Your task to perform on an android device: turn on the 12-hour format for clock Image 0: 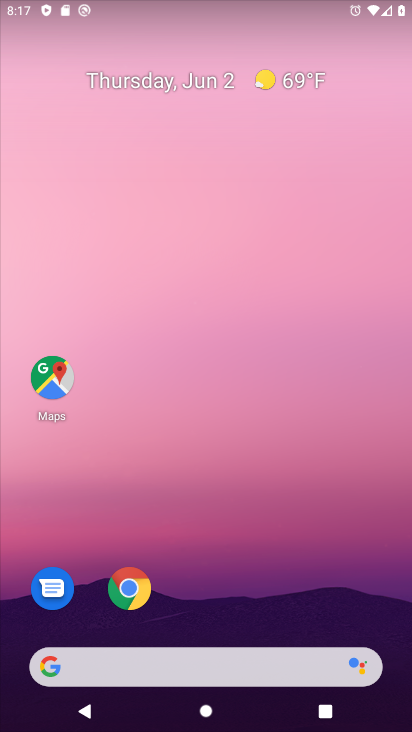
Step 0: drag from (227, 711) to (228, 2)
Your task to perform on an android device: turn on the 12-hour format for clock Image 1: 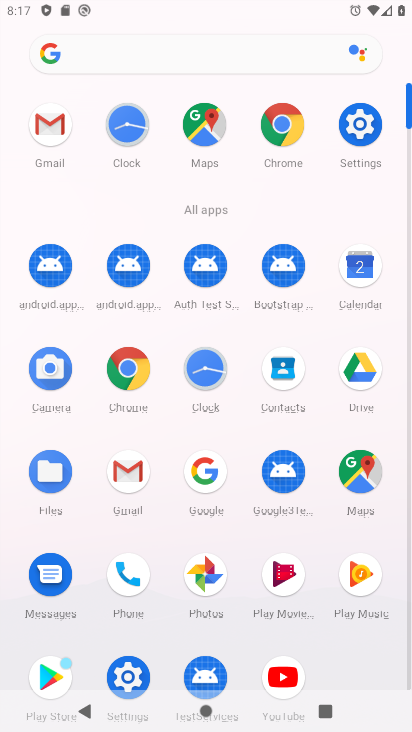
Step 1: click (203, 368)
Your task to perform on an android device: turn on the 12-hour format for clock Image 2: 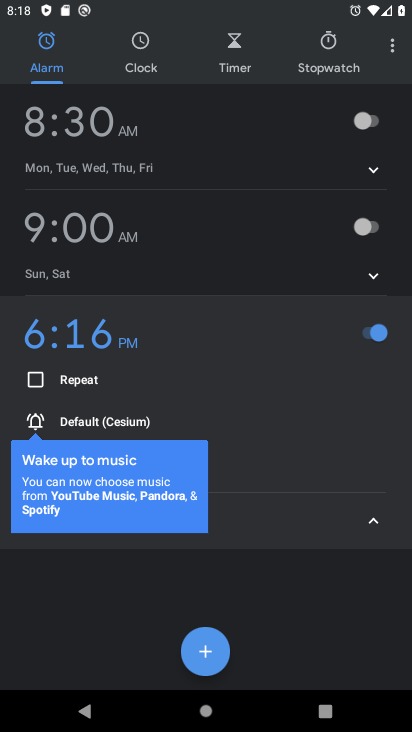
Step 2: click (395, 54)
Your task to perform on an android device: turn on the 12-hour format for clock Image 3: 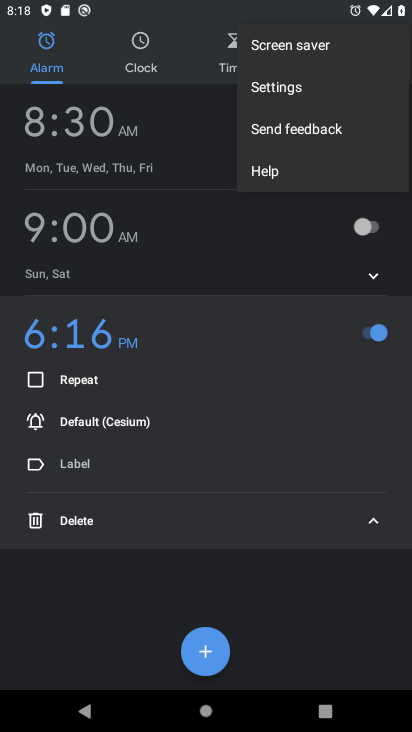
Step 3: click (277, 87)
Your task to perform on an android device: turn on the 12-hour format for clock Image 4: 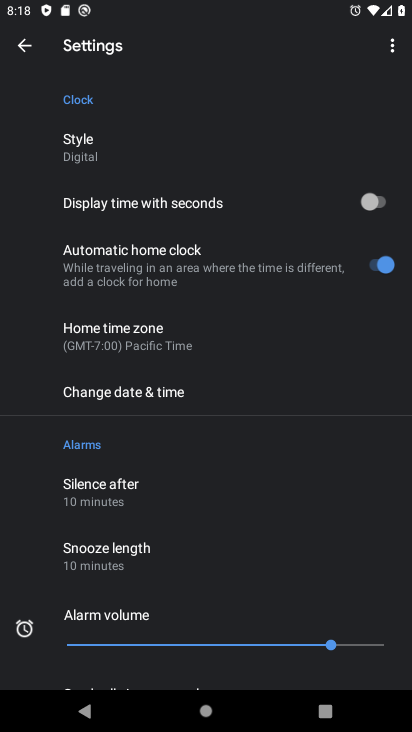
Step 4: click (94, 391)
Your task to perform on an android device: turn on the 12-hour format for clock Image 5: 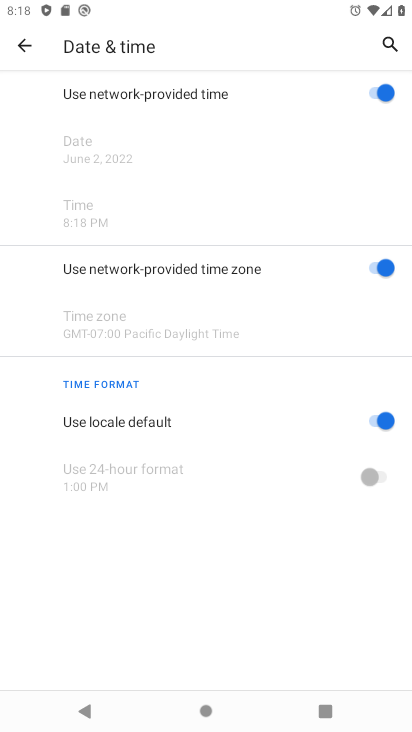
Step 5: task complete